Your task to perform on an android device: Open eBay Image 0: 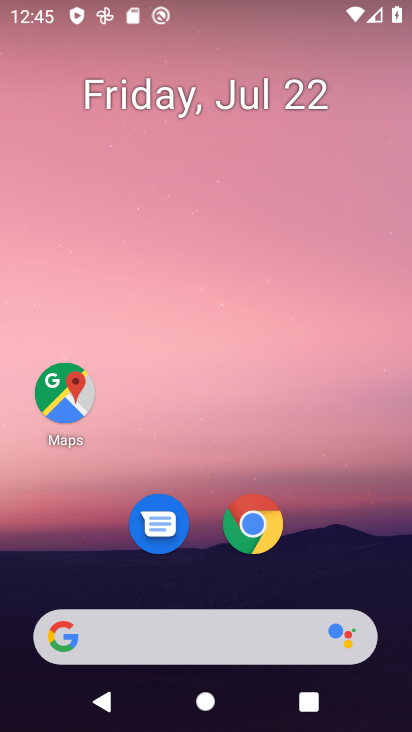
Step 0: press home button
Your task to perform on an android device: Open eBay Image 1: 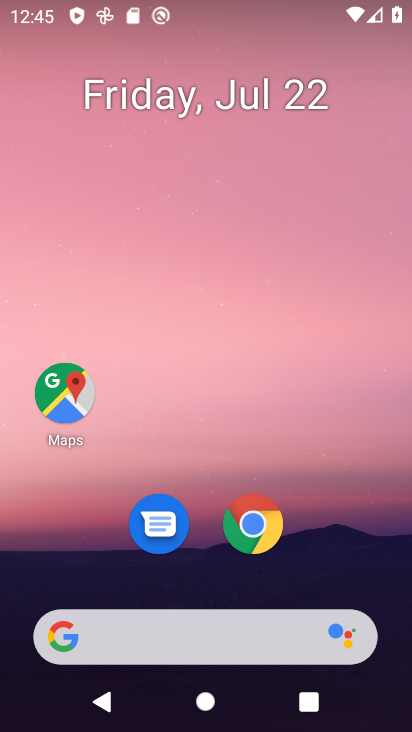
Step 1: click (249, 534)
Your task to perform on an android device: Open eBay Image 2: 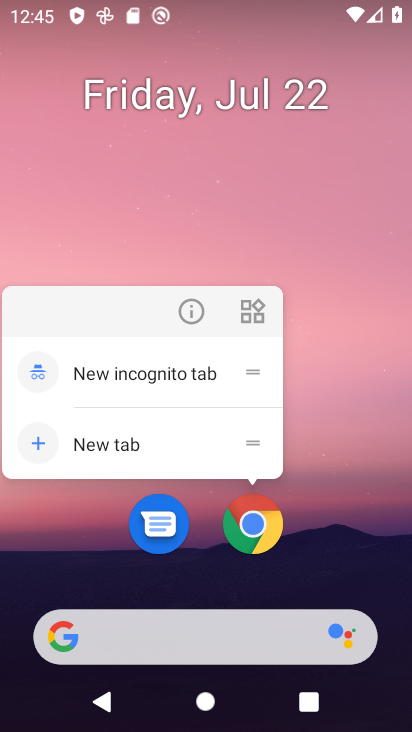
Step 2: click (261, 521)
Your task to perform on an android device: Open eBay Image 3: 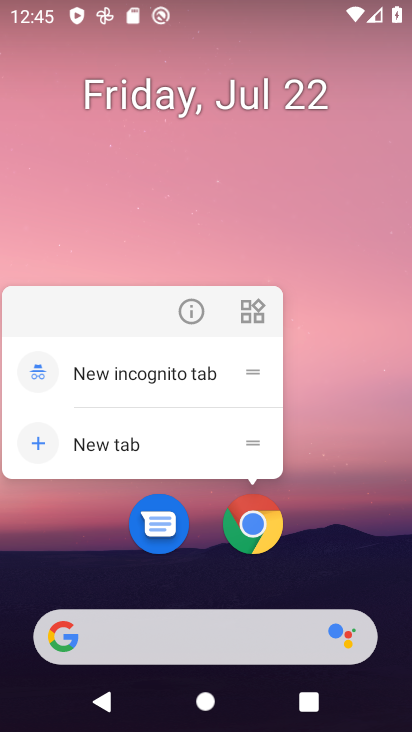
Step 3: click (253, 526)
Your task to perform on an android device: Open eBay Image 4: 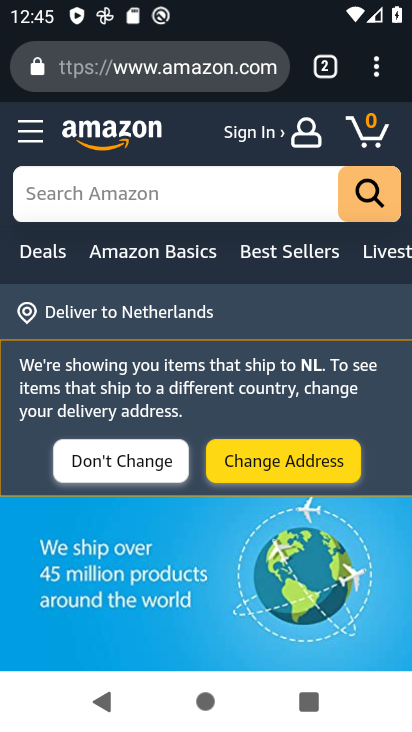
Step 4: drag from (378, 64) to (242, 131)
Your task to perform on an android device: Open eBay Image 5: 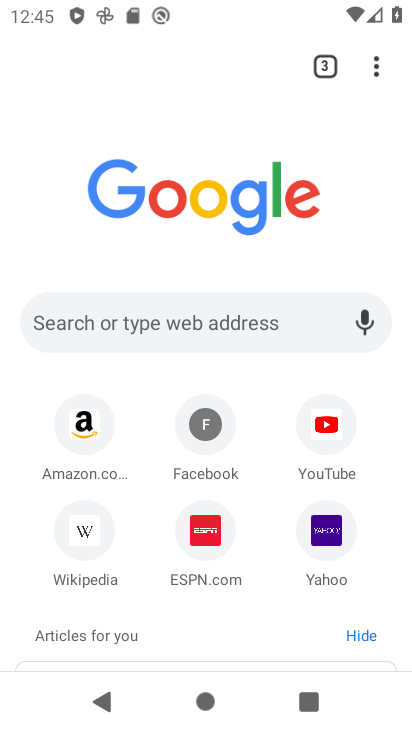
Step 5: click (169, 313)
Your task to perform on an android device: Open eBay Image 6: 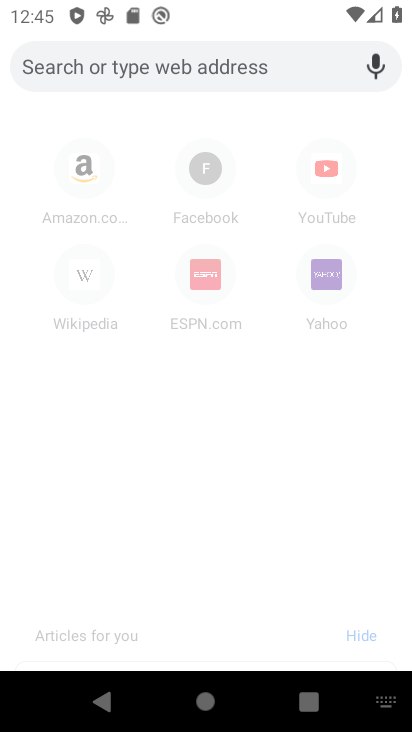
Step 6: type "ebay"
Your task to perform on an android device: Open eBay Image 7: 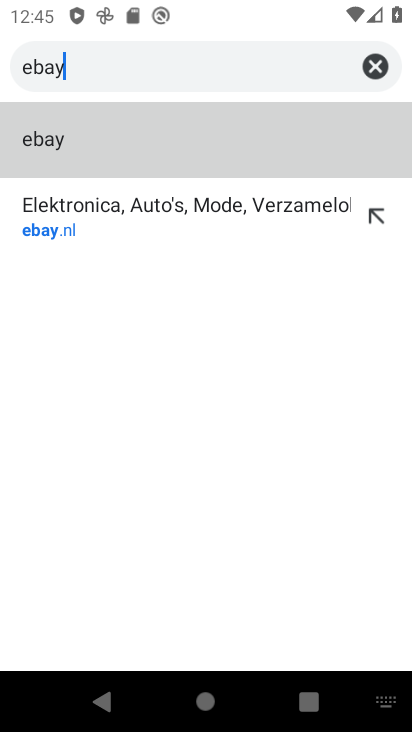
Step 7: click (120, 145)
Your task to perform on an android device: Open eBay Image 8: 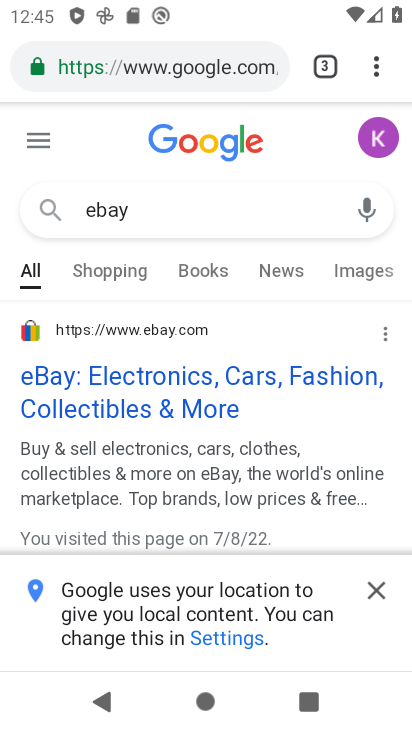
Step 8: click (226, 394)
Your task to perform on an android device: Open eBay Image 9: 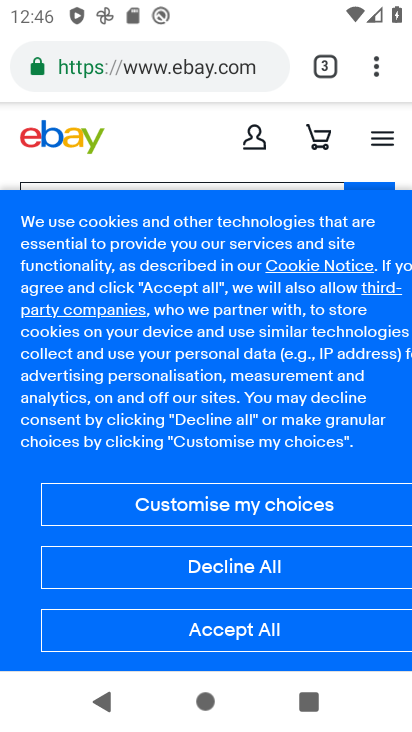
Step 9: click (269, 620)
Your task to perform on an android device: Open eBay Image 10: 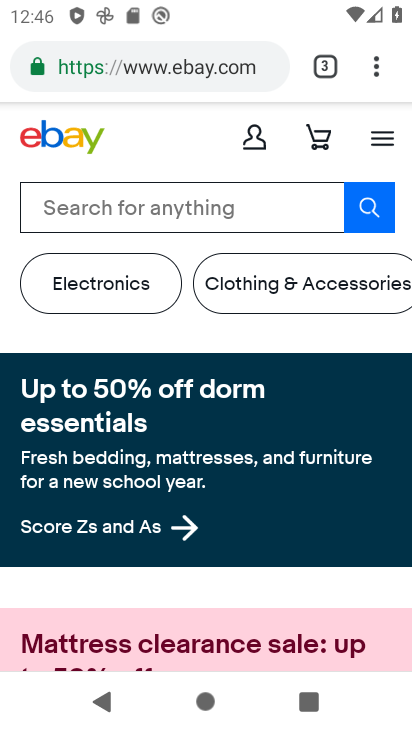
Step 10: task complete